Your task to perform on an android device: Show me popular games on the Play Store Image 0: 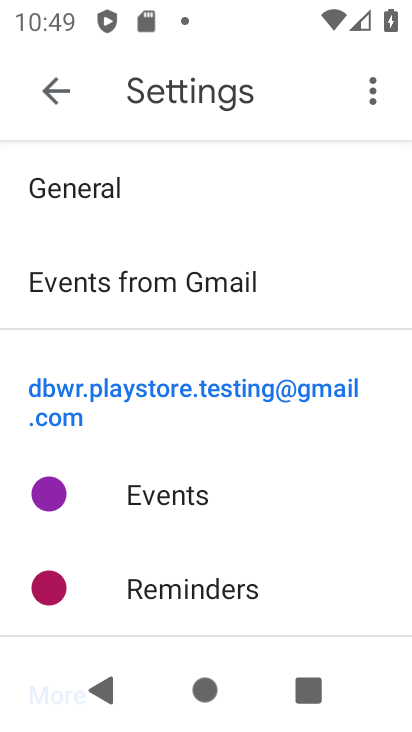
Step 0: press home button
Your task to perform on an android device: Show me popular games on the Play Store Image 1: 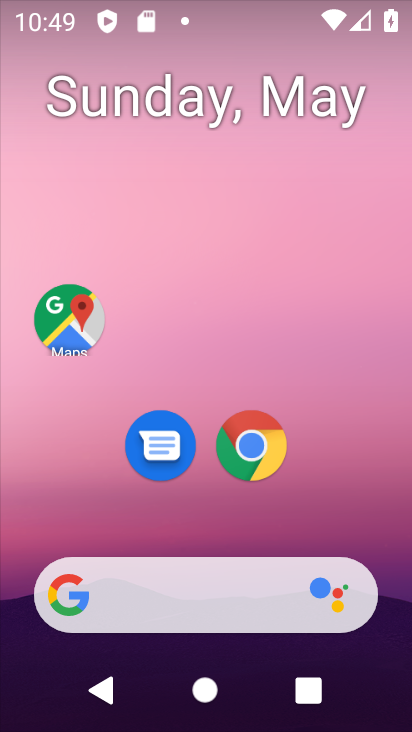
Step 1: drag from (129, 465) to (123, 209)
Your task to perform on an android device: Show me popular games on the Play Store Image 2: 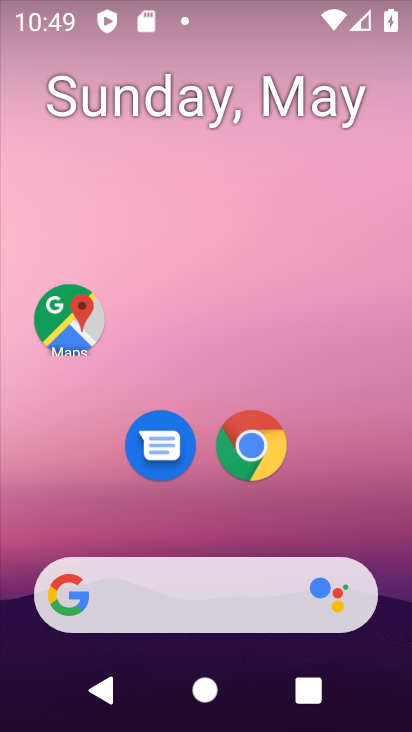
Step 2: drag from (181, 544) to (229, 87)
Your task to perform on an android device: Show me popular games on the Play Store Image 3: 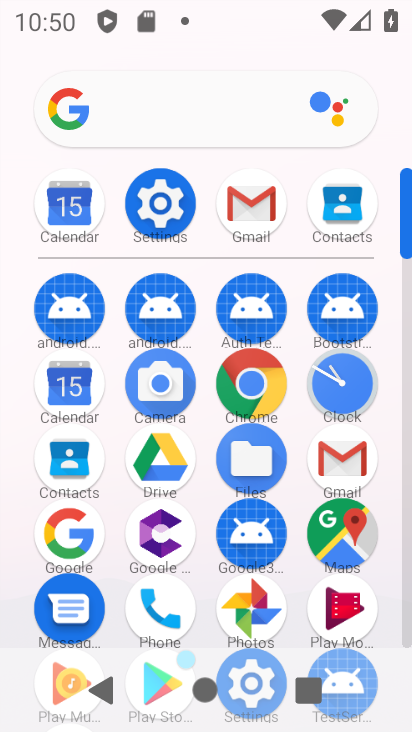
Step 3: drag from (204, 560) to (234, 341)
Your task to perform on an android device: Show me popular games on the Play Store Image 4: 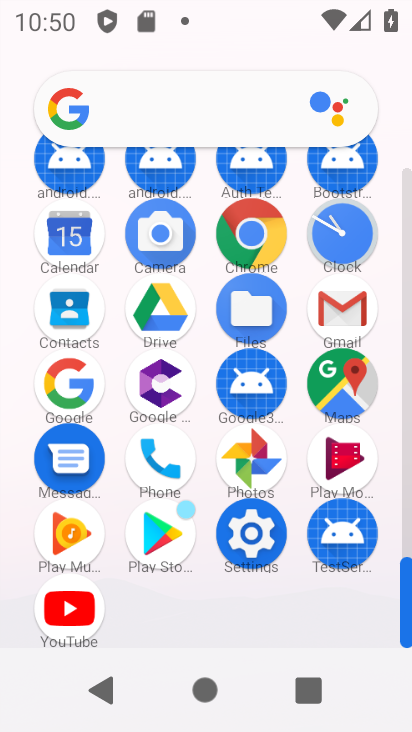
Step 4: click (165, 532)
Your task to perform on an android device: Show me popular games on the Play Store Image 5: 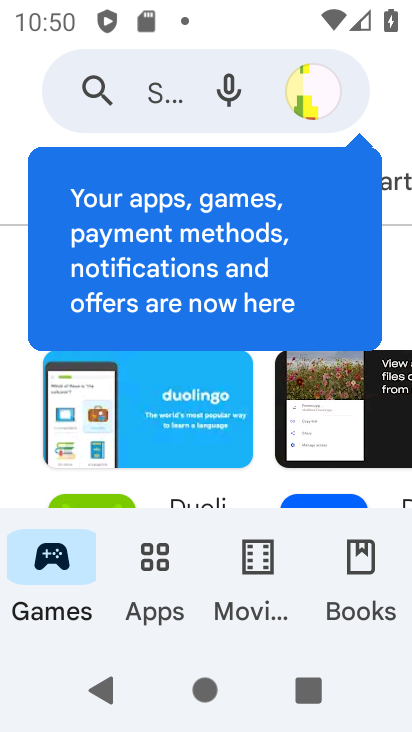
Step 5: click (174, 87)
Your task to perform on an android device: Show me popular games on the Play Store Image 6: 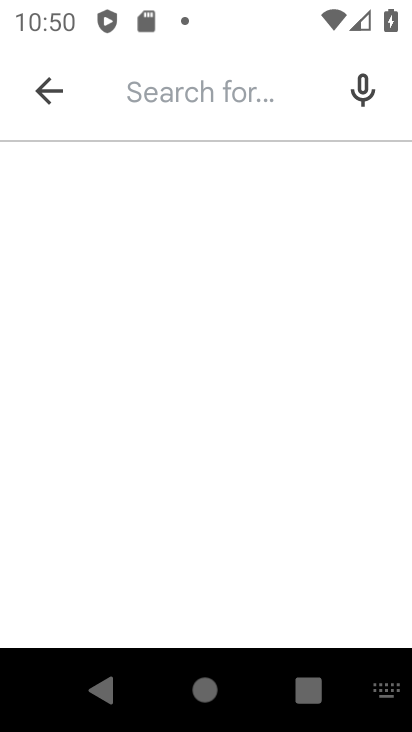
Step 6: type "popular games"
Your task to perform on an android device: Show me popular games on the Play Store Image 7: 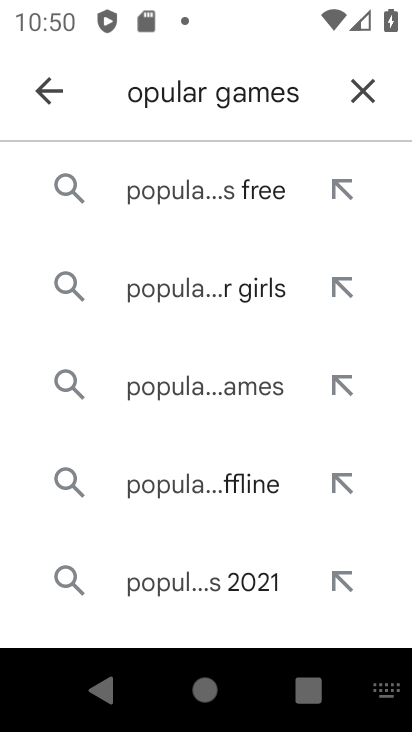
Step 7: click (221, 397)
Your task to perform on an android device: Show me popular games on the Play Store Image 8: 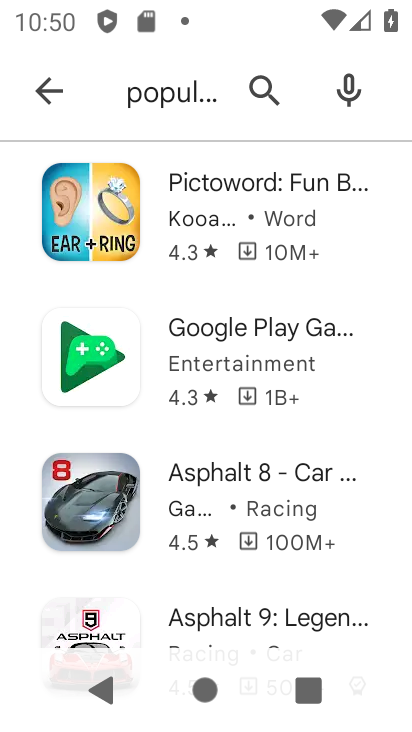
Step 8: task complete